Your task to perform on an android device: set an alarm Image 0: 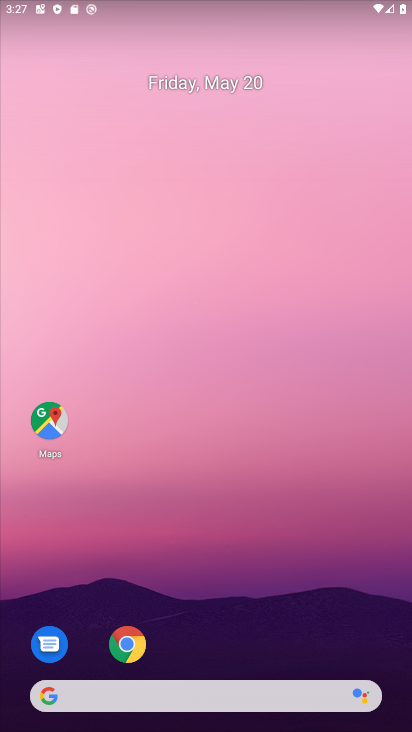
Step 0: drag from (289, 580) to (228, 12)
Your task to perform on an android device: set an alarm Image 1: 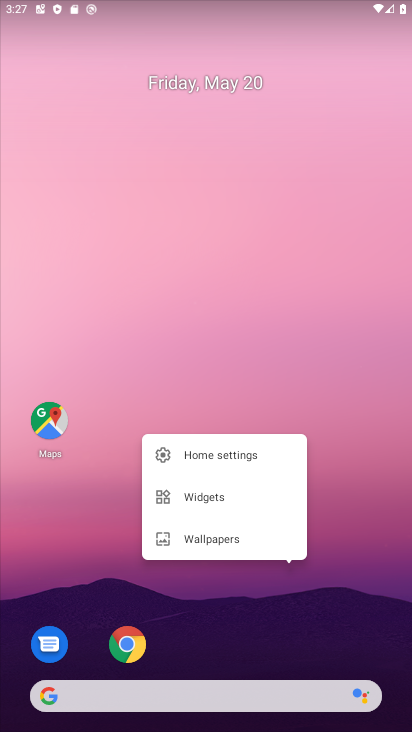
Step 1: click (176, 282)
Your task to perform on an android device: set an alarm Image 2: 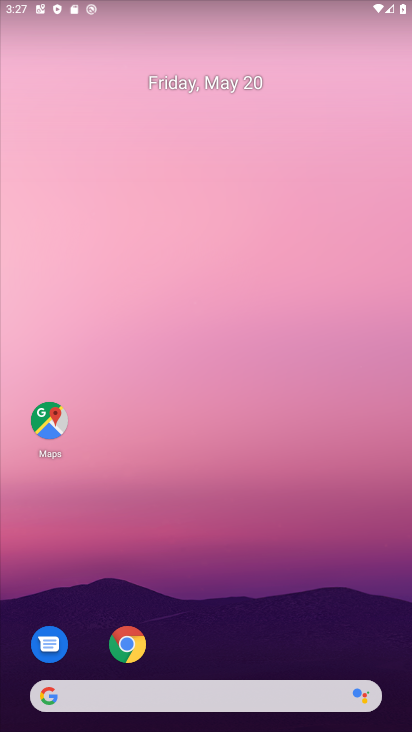
Step 2: drag from (231, 518) to (7, 16)
Your task to perform on an android device: set an alarm Image 3: 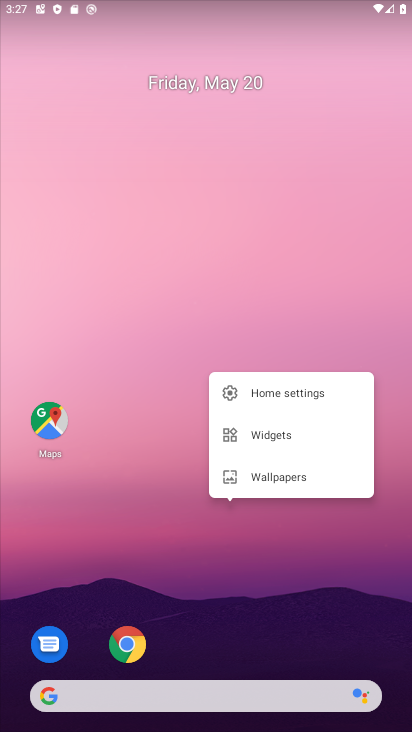
Step 3: click (107, 546)
Your task to perform on an android device: set an alarm Image 4: 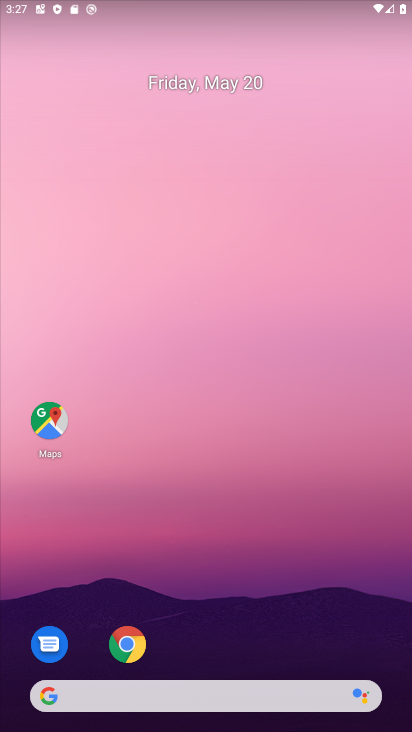
Step 4: drag from (244, 604) to (251, 254)
Your task to perform on an android device: set an alarm Image 5: 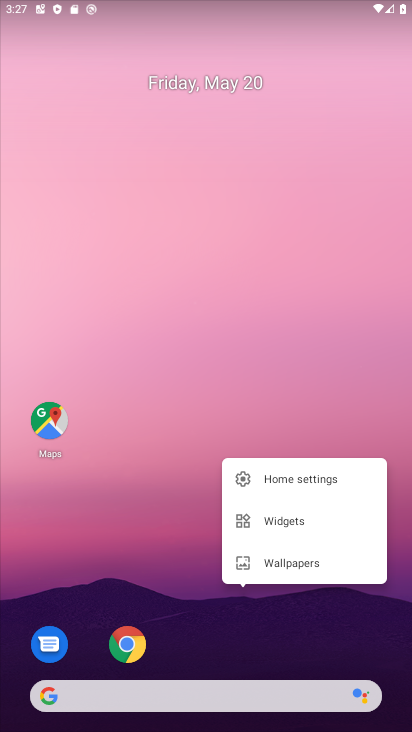
Step 5: click (251, 254)
Your task to perform on an android device: set an alarm Image 6: 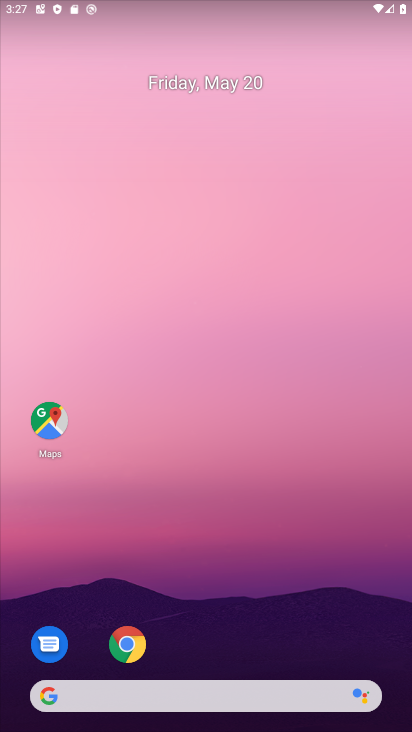
Step 6: click (251, 254)
Your task to perform on an android device: set an alarm Image 7: 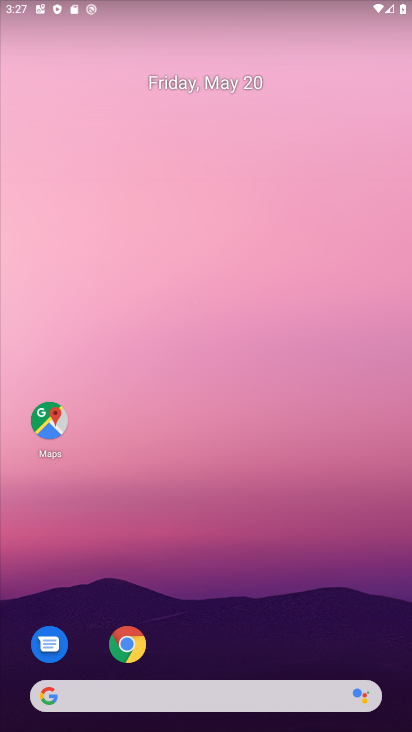
Step 7: drag from (275, 578) to (249, 111)
Your task to perform on an android device: set an alarm Image 8: 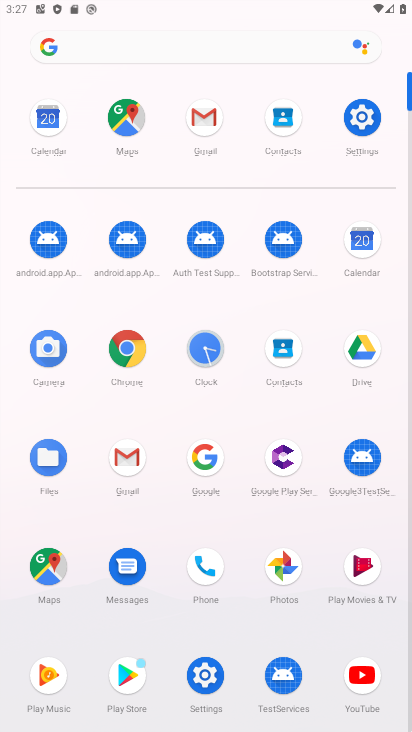
Step 8: click (217, 341)
Your task to perform on an android device: set an alarm Image 9: 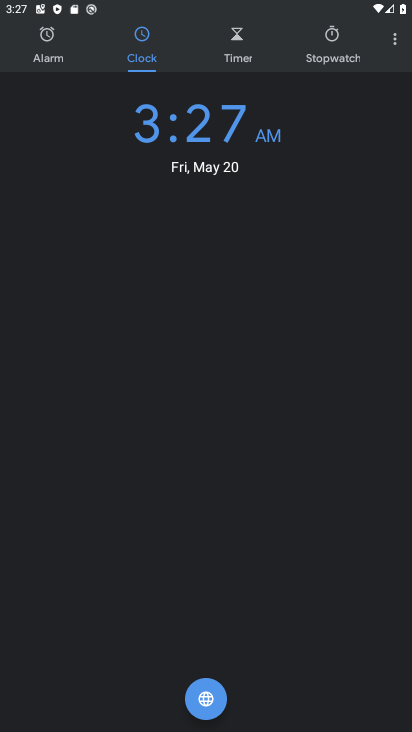
Step 9: click (47, 77)
Your task to perform on an android device: set an alarm Image 10: 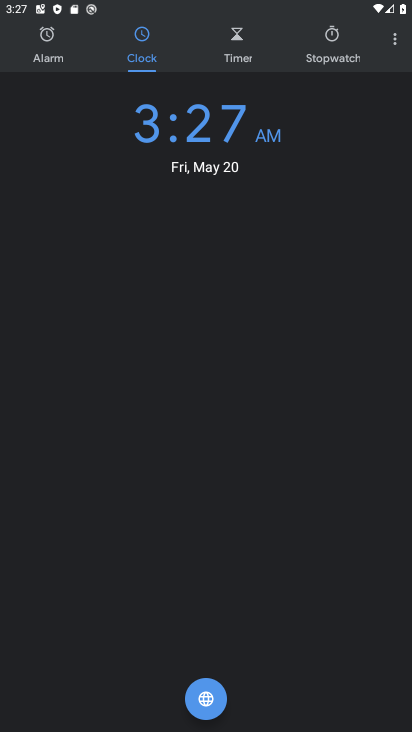
Step 10: click (50, 62)
Your task to perform on an android device: set an alarm Image 11: 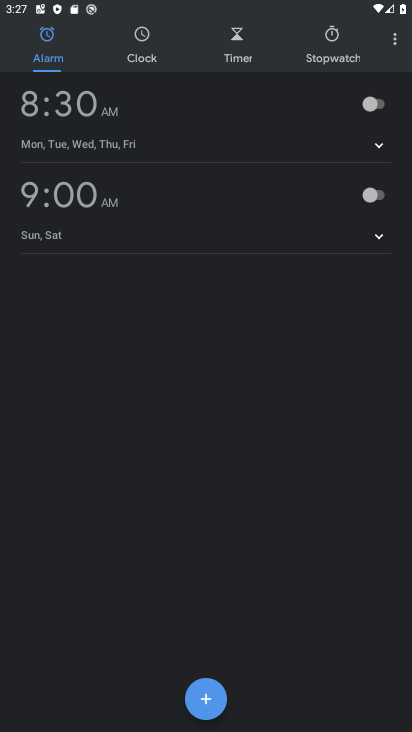
Step 11: click (299, 105)
Your task to perform on an android device: set an alarm Image 12: 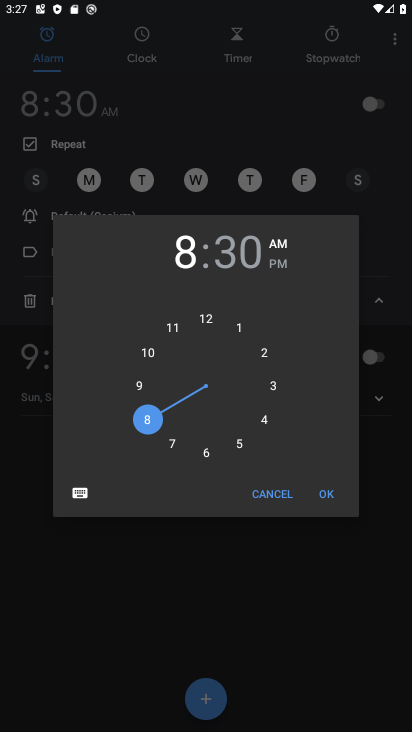
Step 12: task complete